Your task to perform on an android device: turn pop-ups on in chrome Image 0: 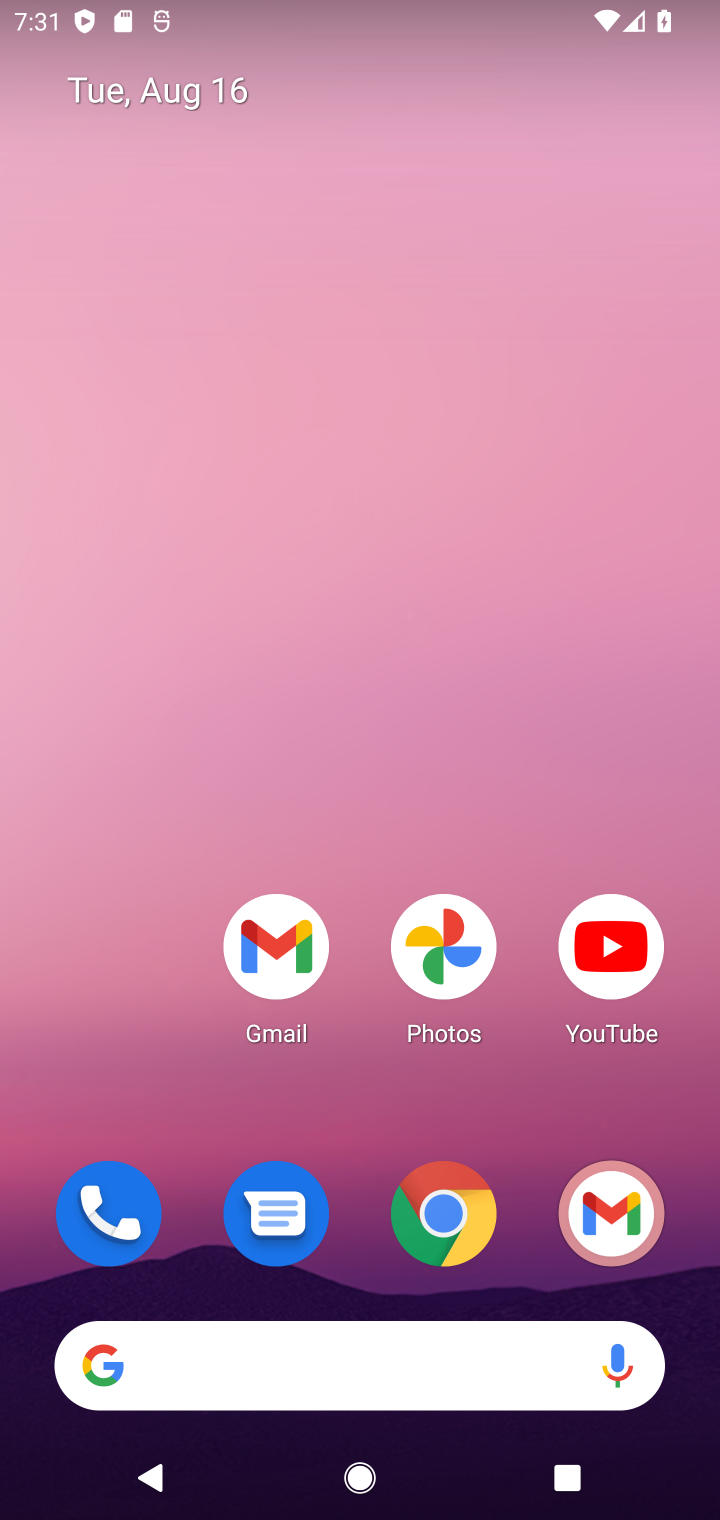
Step 0: click (434, 1205)
Your task to perform on an android device: turn pop-ups on in chrome Image 1: 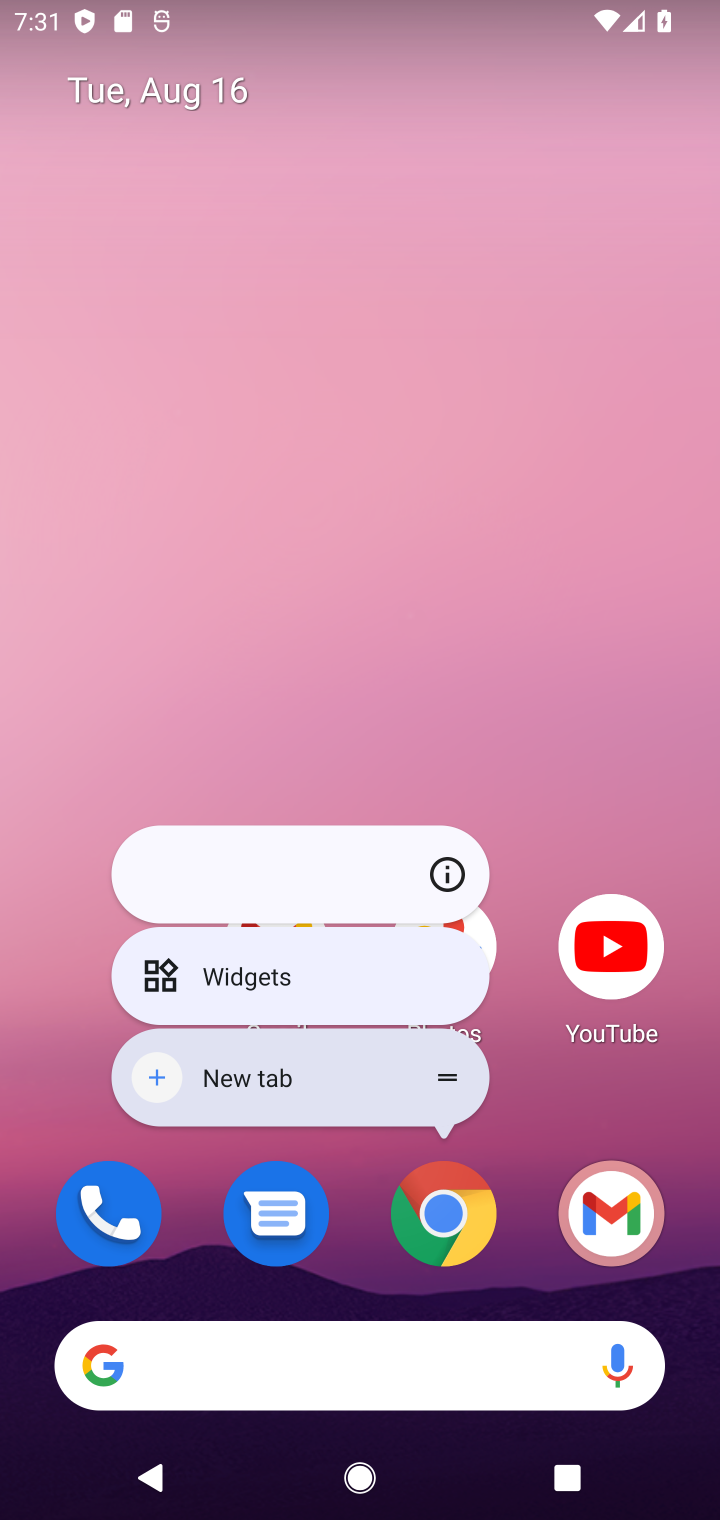
Step 1: click (443, 1188)
Your task to perform on an android device: turn pop-ups on in chrome Image 2: 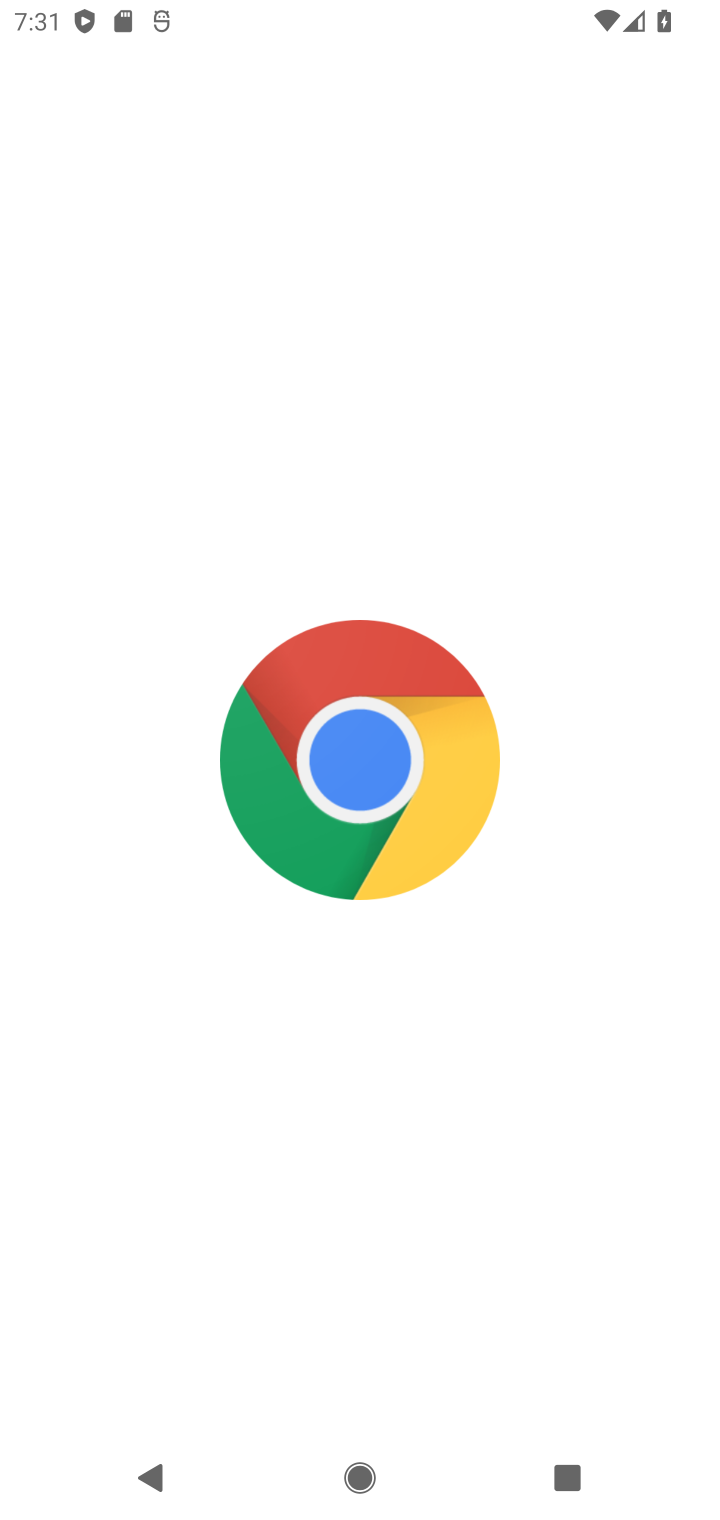
Step 2: click (443, 1188)
Your task to perform on an android device: turn pop-ups on in chrome Image 3: 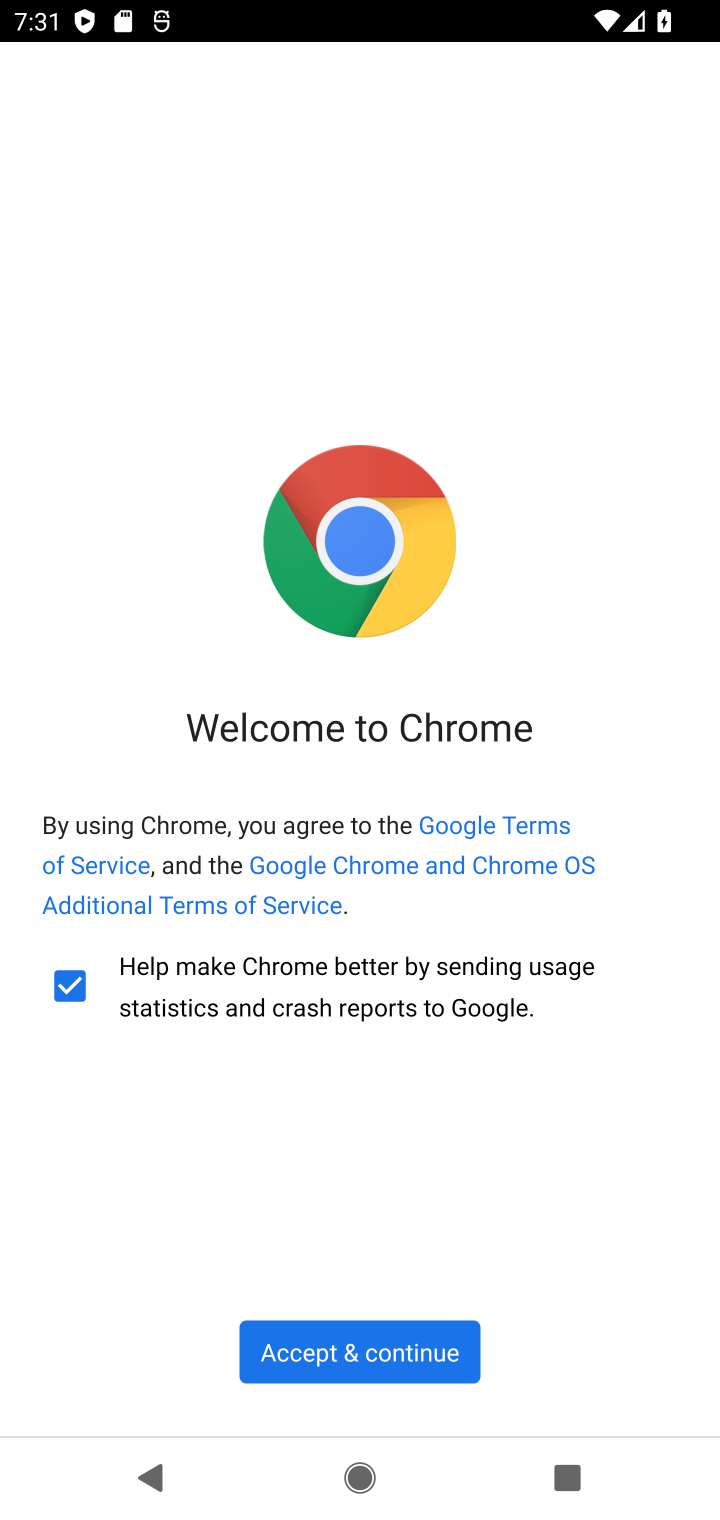
Step 3: click (436, 1372)
Your task to perform on an android device: turn pop-ups on in chrome Image 4: 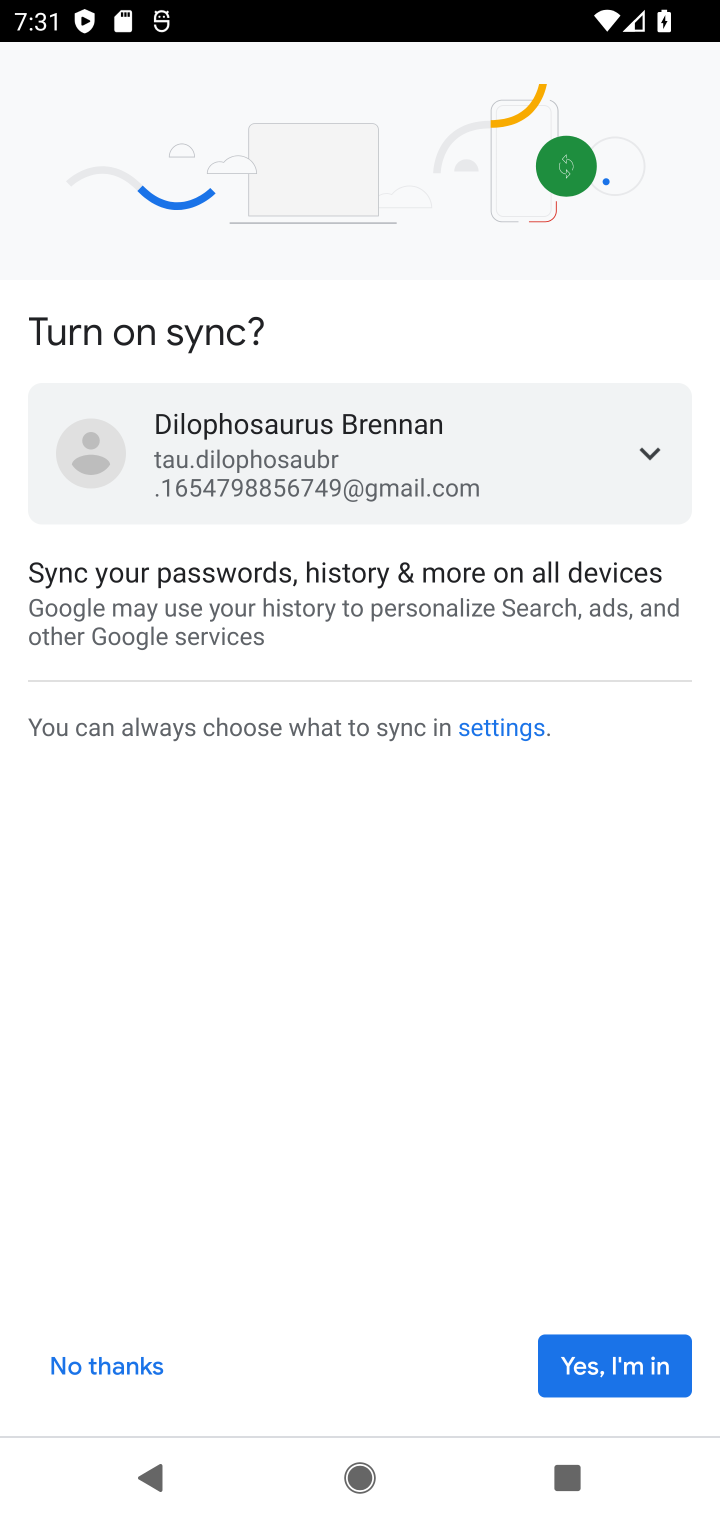
Step 4: click (585, 1342)
Your task to perform on an android device: turn pop-ups on in chrome Image 5: 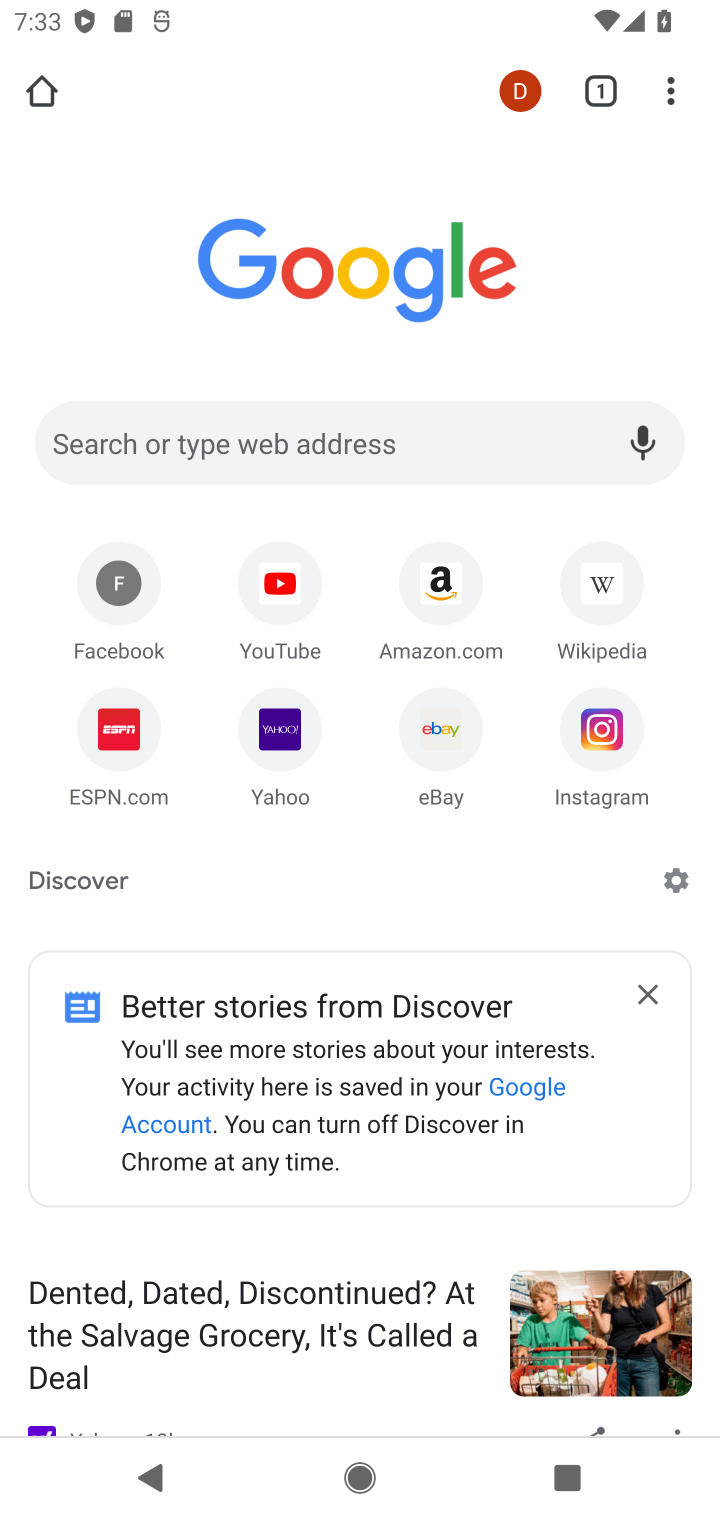
Step 5: click (670, 104)
Your task to perform on an android device: turn pop-ups on in chrome Image 6: 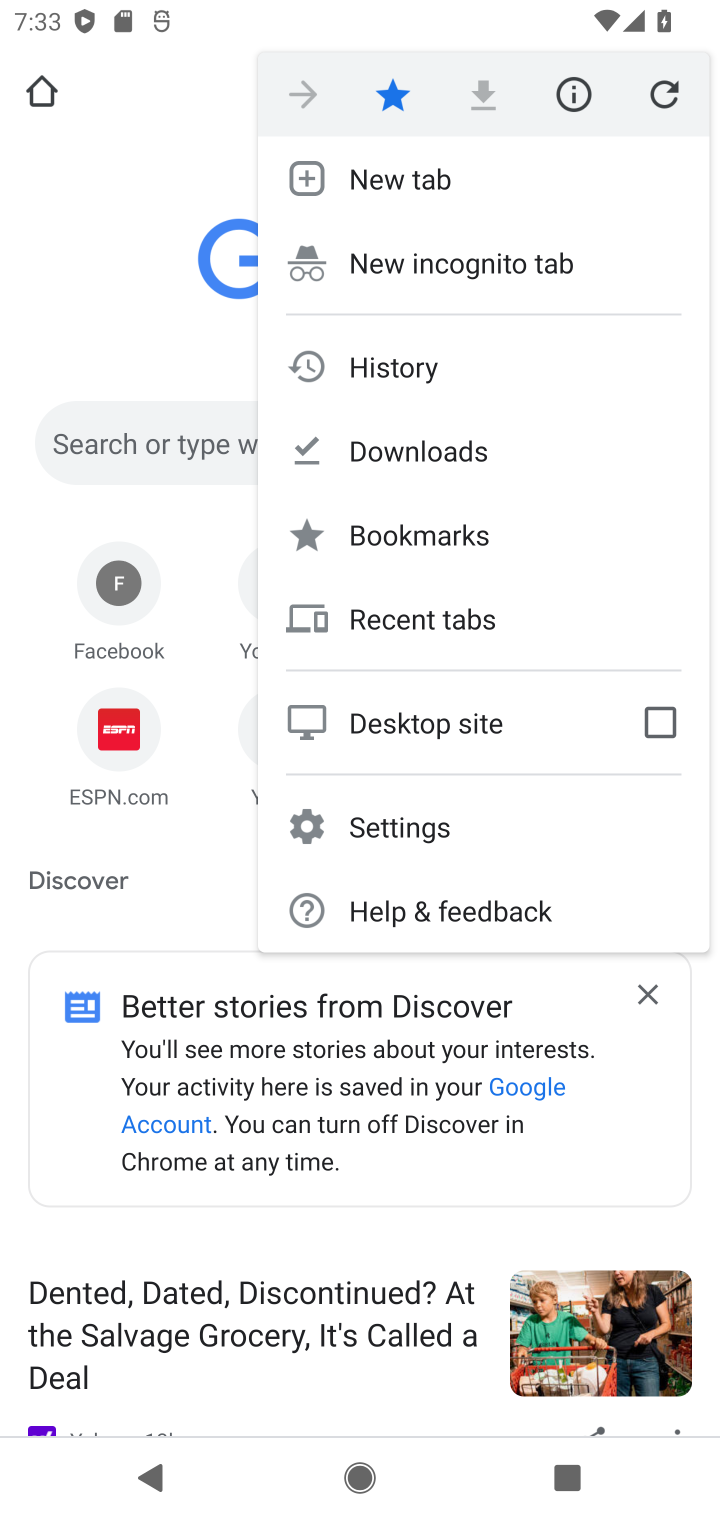
Step 6: click (460, 791)
Your task to perform on an android device: turn pop-ups on in chrome Image 7: 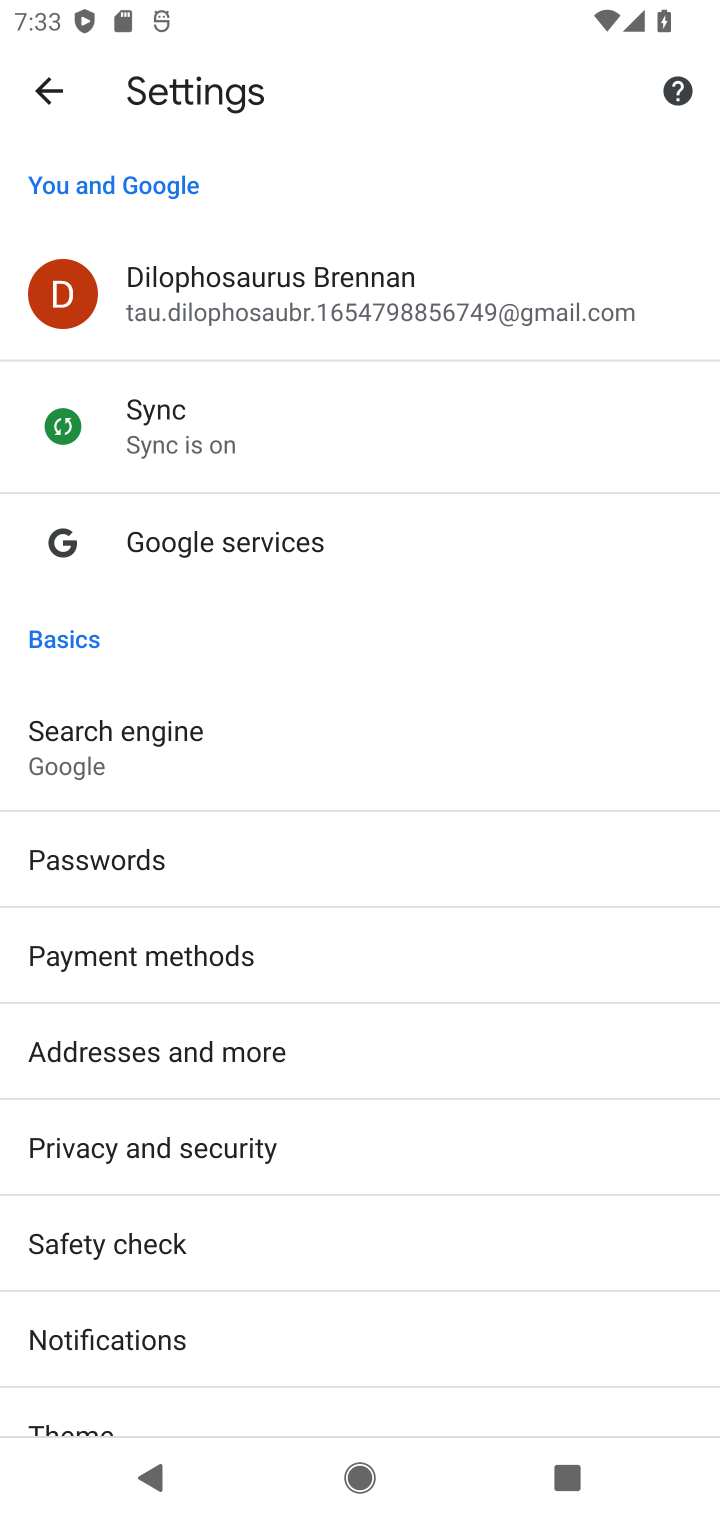
Step 7: task complete